Your task to perform on an android device: all mails in gmail Image 0: 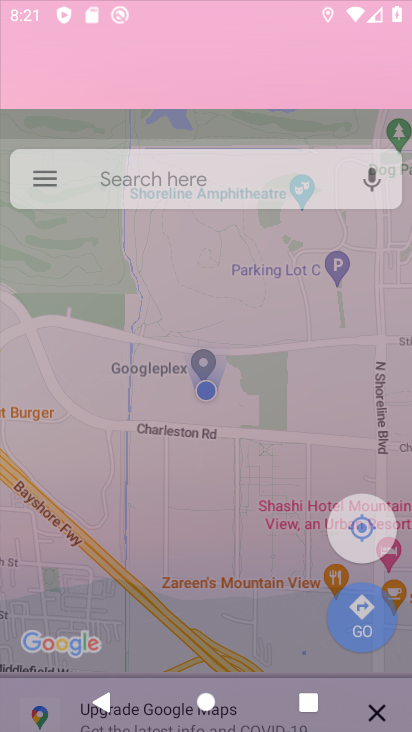
Step 0: drag from (248, 0) to (165, 3)
Your task to perform on an android device: all mails in gmail Image 1: 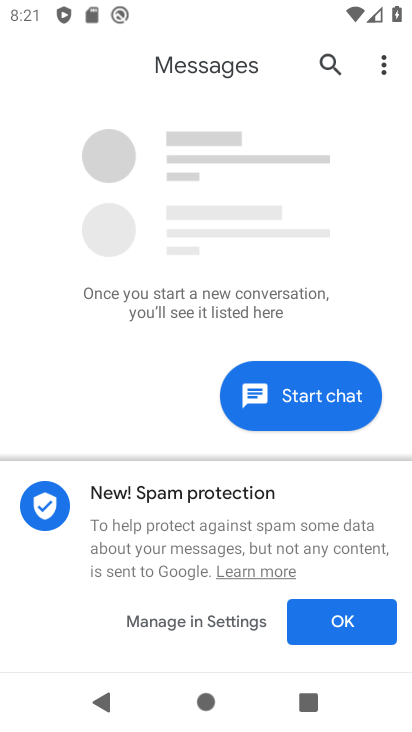
Step 1: press home button
Your task to perform on an android device: all mails in gmail Image 2: 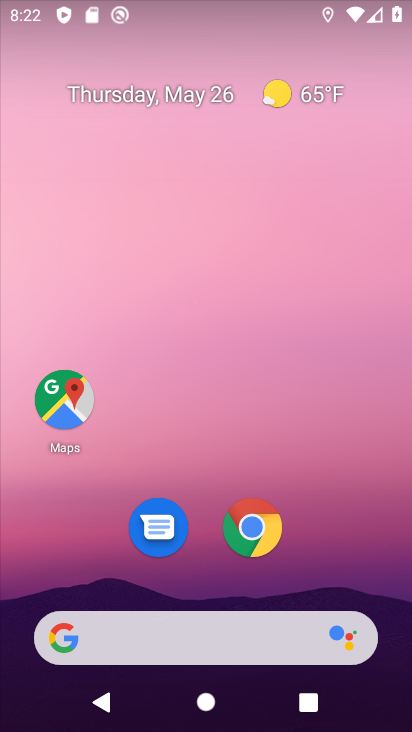
Step 2: drag from (331, 542) to (254, 33)
Your task to perform on an android device: all mails in gmail Image 3: 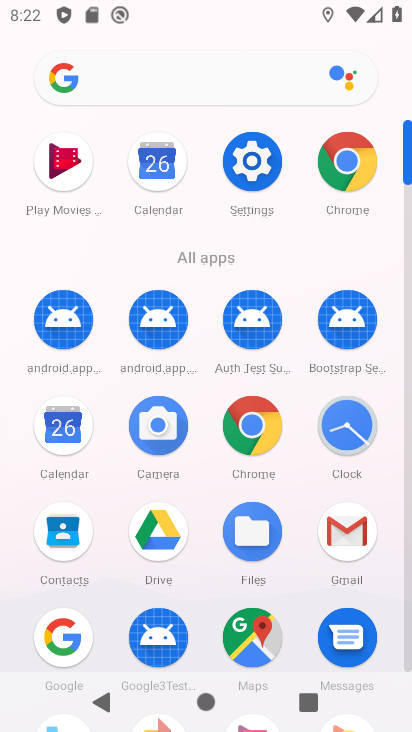
Step 3: click (359, 537)
Your task to perform on an android device: all mails in gmail Image 4: 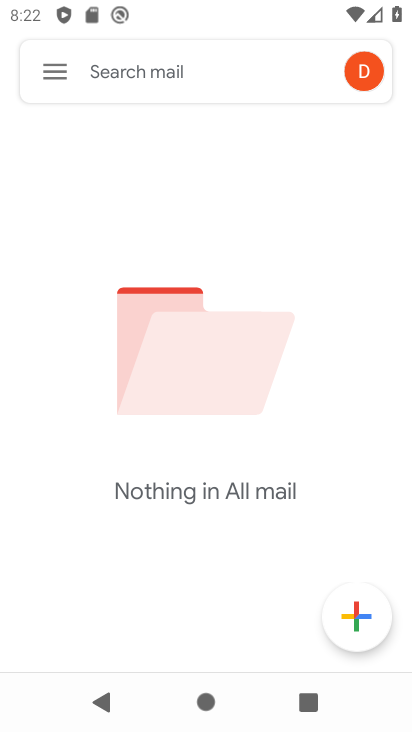
Step 4: task complete